Your task to perform on an android device: move a message to another label in the gmail app Image 0: 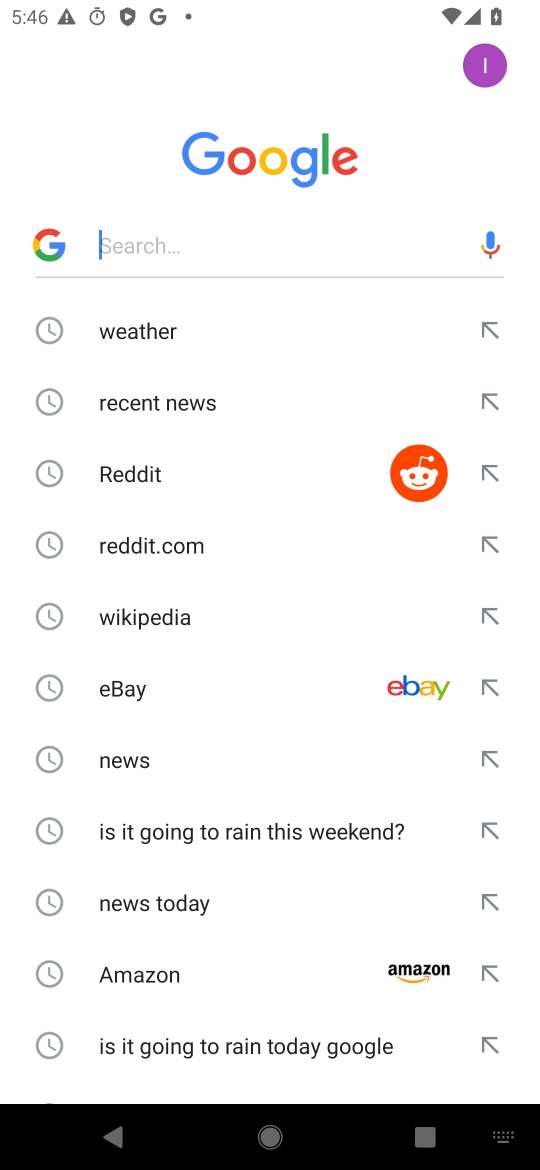
Step 0: press home button
Your task to perform on an android device: move a message to another label in the gmail app Image 1: 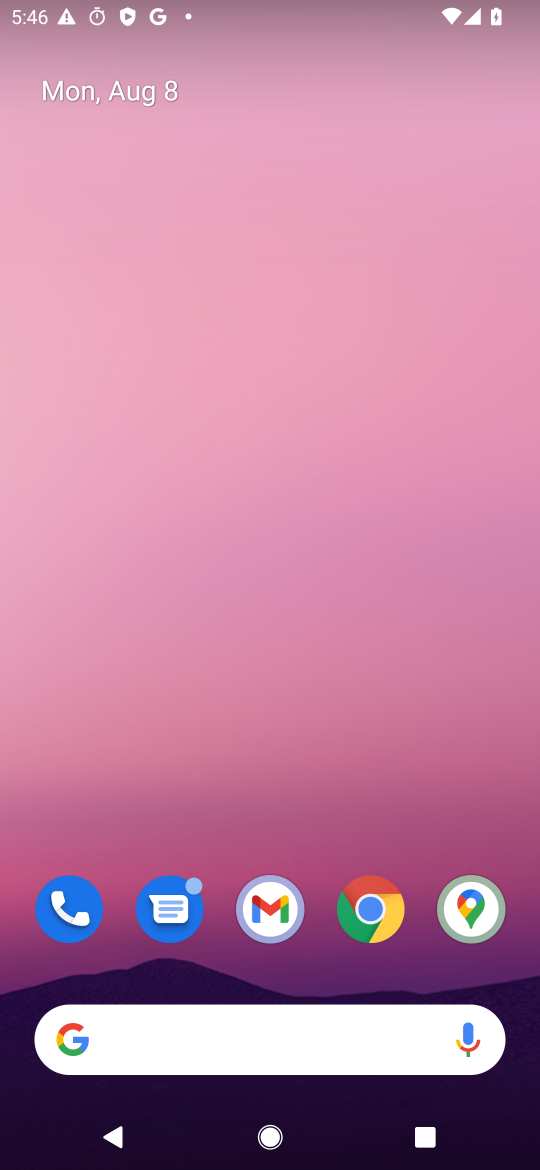
Step 1: click (270, 894)
Your task to perform on an android device: move a message to another label in the gmail app Image 2: 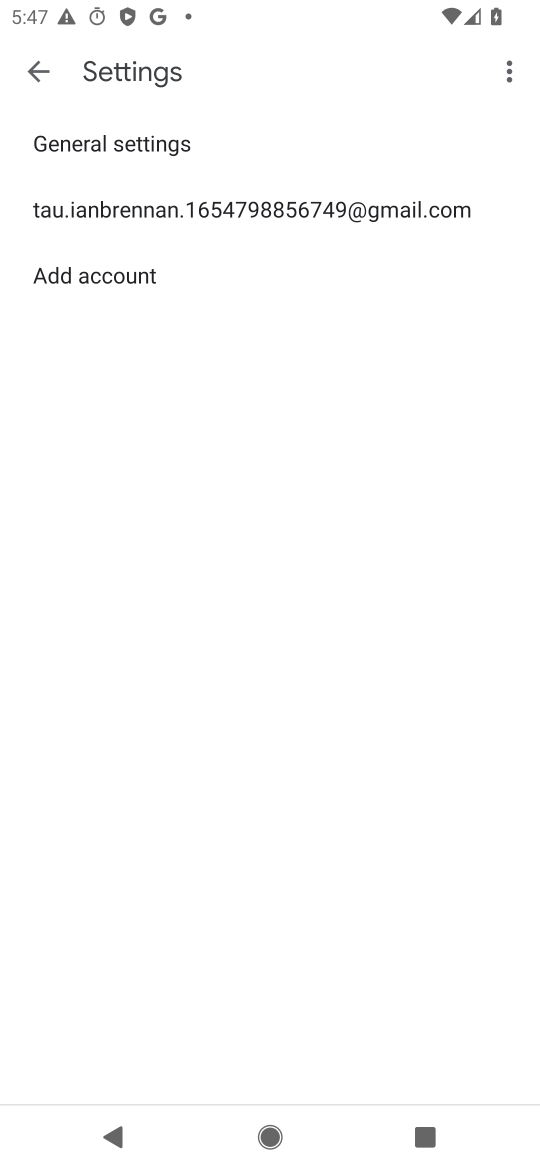
Step 2: click (45, 69)
Your task to perform on an android device: move a message to another label in the gmail app Image 3: 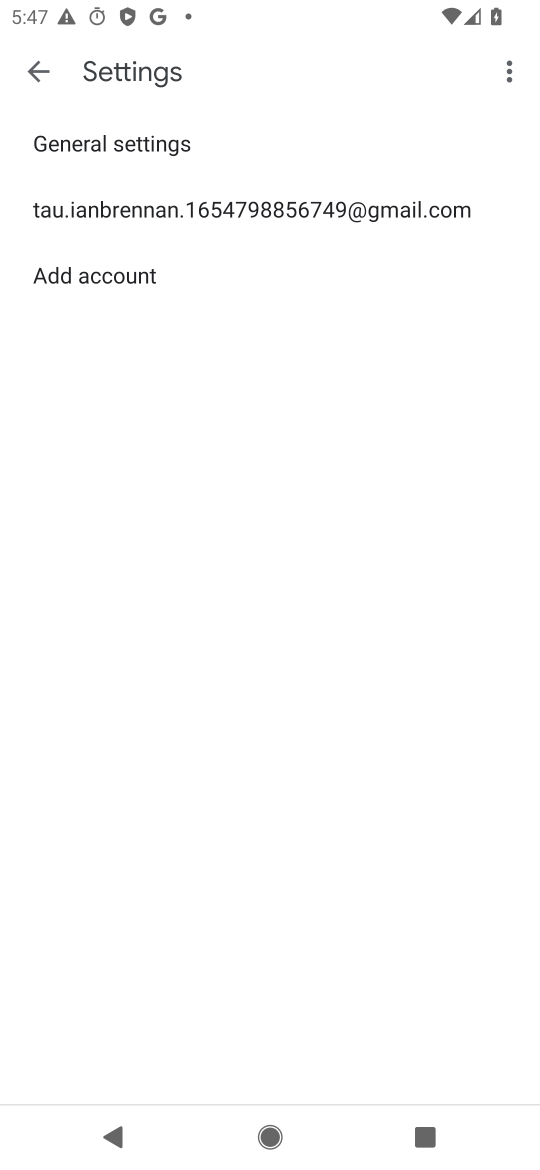
Step 3: click (45, 69)
Your task to perform on an android device: move a message to another label in the gmail app Image 4: 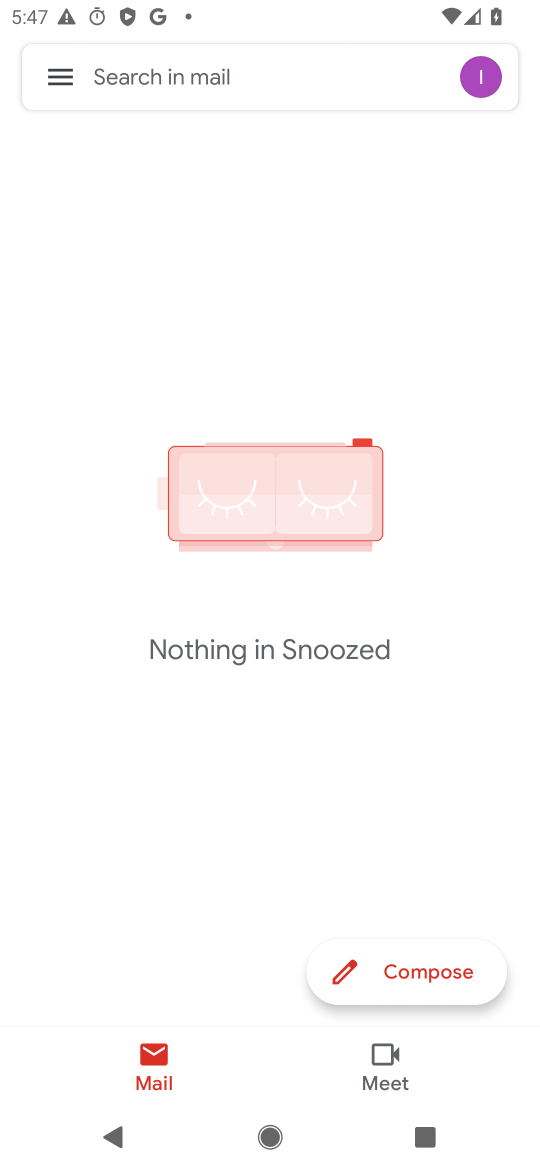
Step 4: click (39, 66)
Your task to perform on an android device: move a message to another label in the gmail app Image 5: 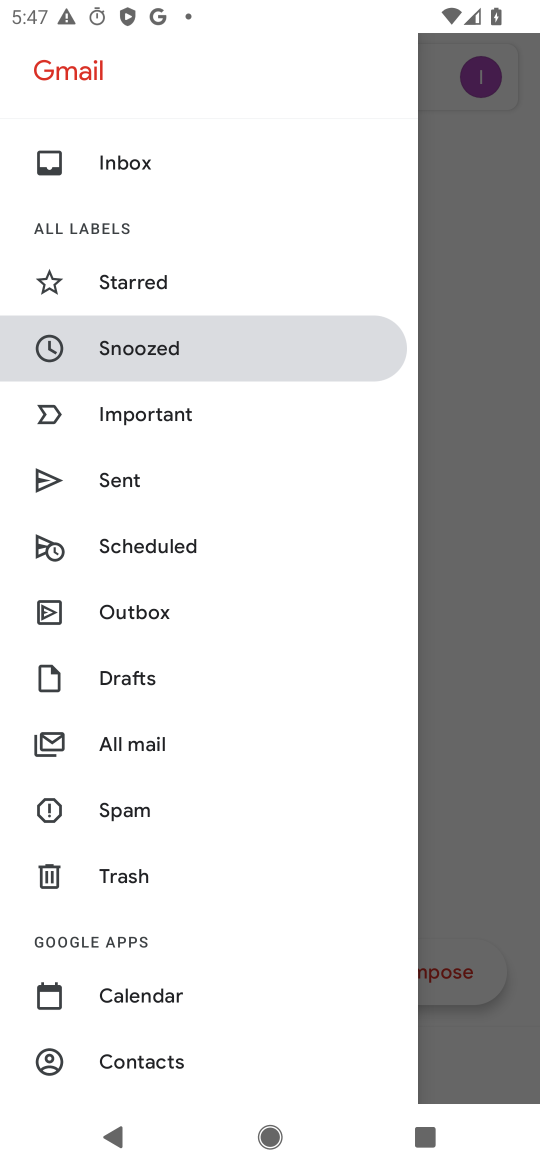
Step 5: click (148, 738)
Your task to perform on an android device: move a message to another label in the gmail app Image 6: 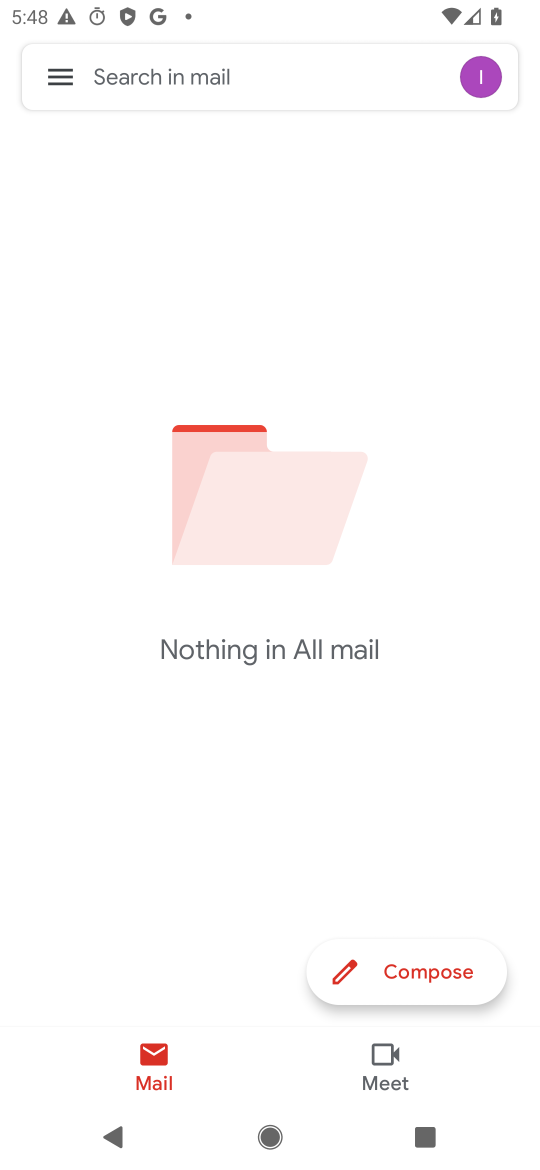
Step 6: task complete